Your task to perform on an android device: Open Youtube and go to the subscriptions tab Image 0: 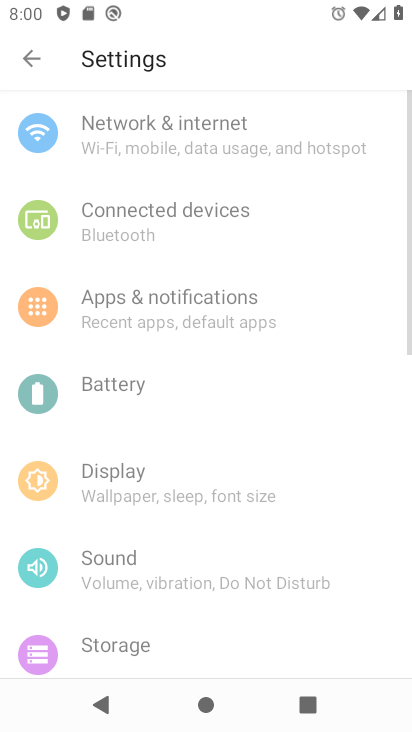
Step 0: drag from (268, 672) to (264, 296)
Your task to perform on an android device: Open Youtube and go to the subscriptions tab Image 1: 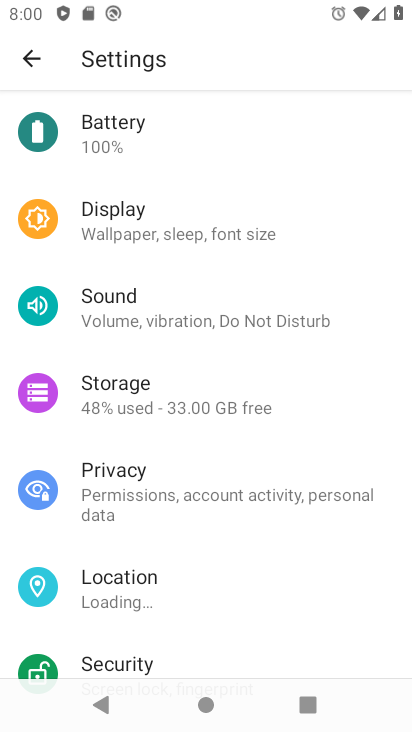
Step 1: press back button
Your task to perform on an android device: Open Youtube and go to the subscriptions tab Image 2: 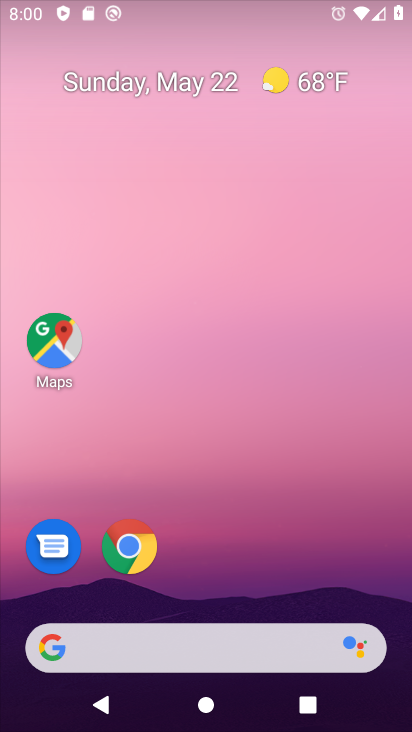
Step 2: drag from (245, 682) to (173, 199)
Your task to perform on an android device: Open Youtube and go to the subscriptions tab Image 3: 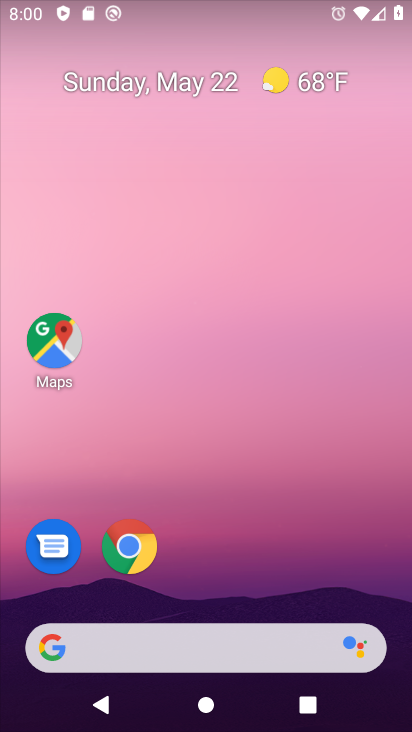
Step 3: drag from (273, 595) to (273, 35)
Your task to perform on an android device: Open Youtube and go to the subscriptions tab Image 4: 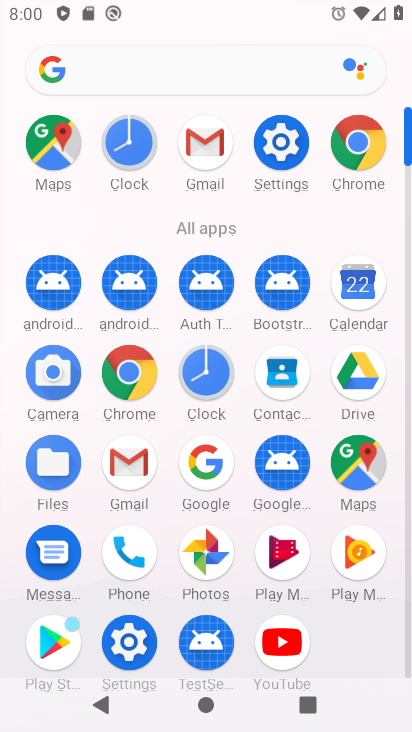
Step 4: click (283, 644)
Your task to perform on an android device: Open Youtube and go to the subscriptions tab Image 5: 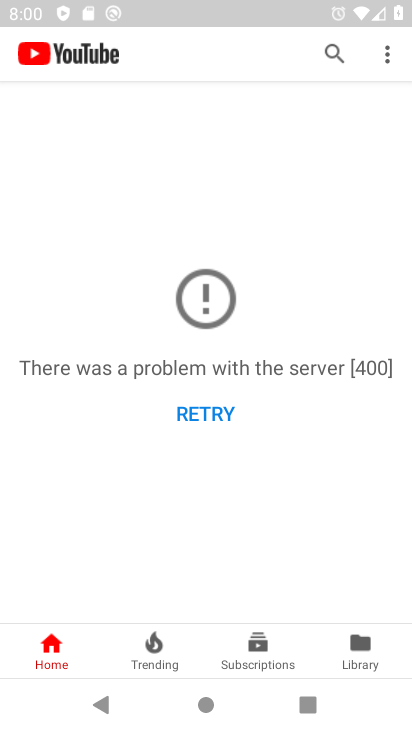
Step 5: click (252, 647)
Your task to perform on an android device: Open Youtube and go to the subscriptions tab Image 6: 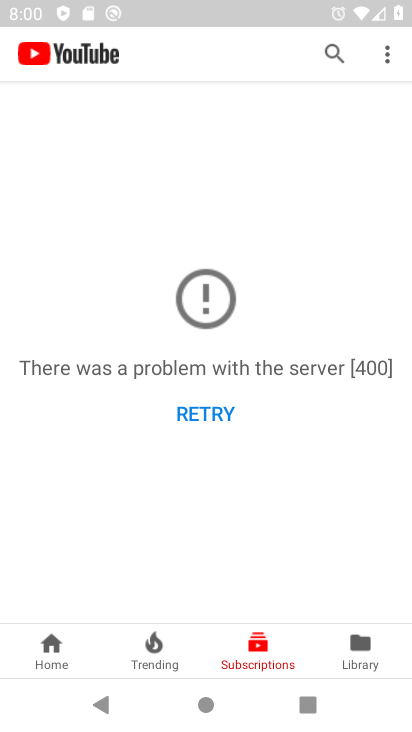
Step 6: task complete